Your task to perform on an android device: Open Reddit.com Image 0: 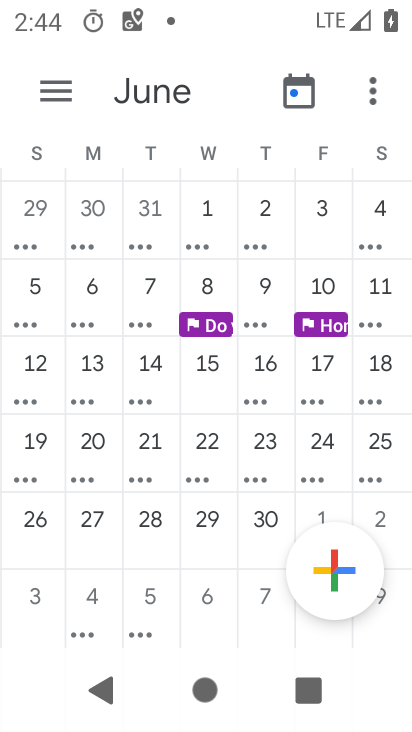
Step 0: press home button
Your task to perform on an android device: Open Reddit.com Image 1: 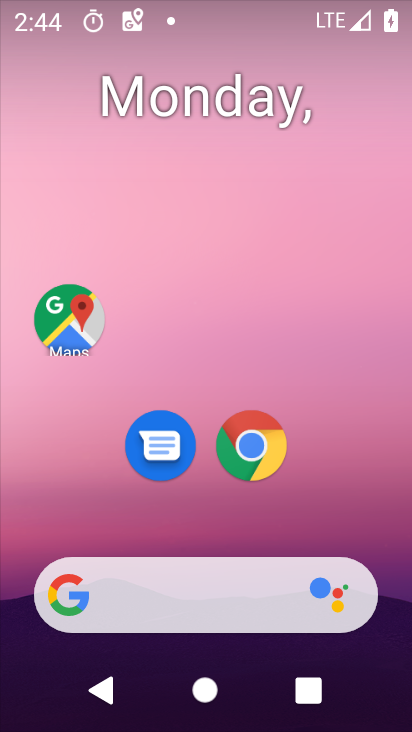
Step 1: click (269, 462)
Your task to perform on an android device: Open Reddit.com Image 2: 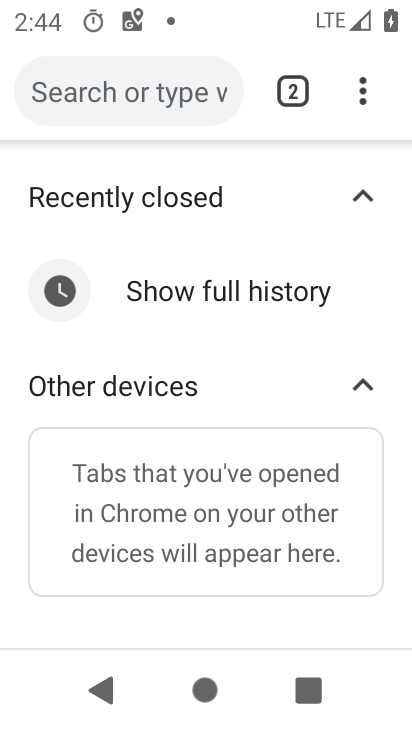
Step 2: click (134, 86)
Your task to perform on an android device: Open Reddit.com Image 3: 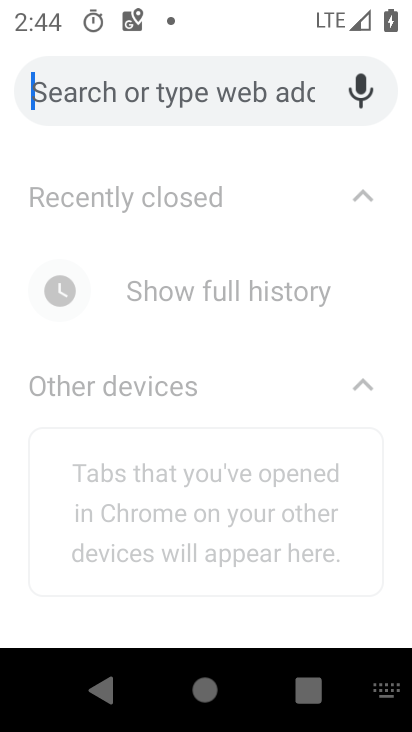
Step 3: type "reddit.com"
Your task to perform on an android device: Open Reddit.com Image 4: 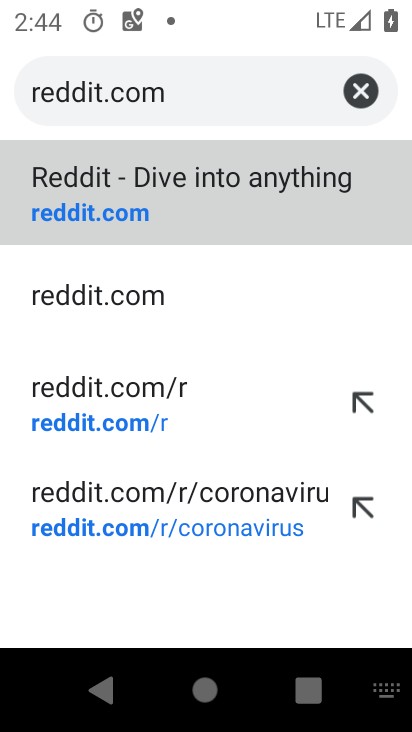
Step 4: click (226, 185)
Your task to perform on an android device: Open Reddit.com Image 5: 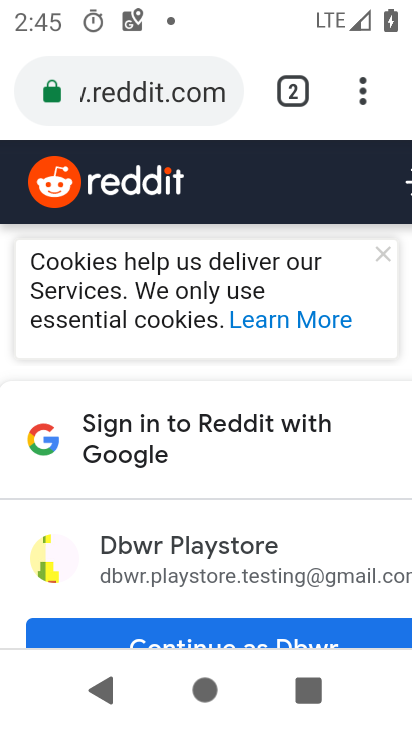
Step 5: task complete